Your task to perform on an android device: Who is the prime minister of Canada? Image 0: 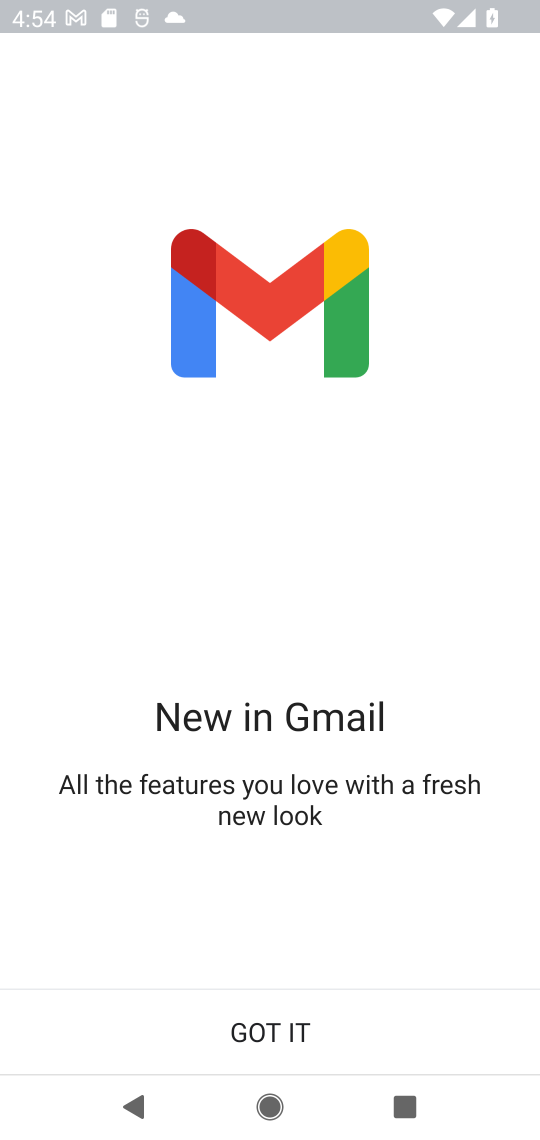
Step 0: press home button
Your task to perform on an android device: Who is the prime minister of Canada? Image 1: 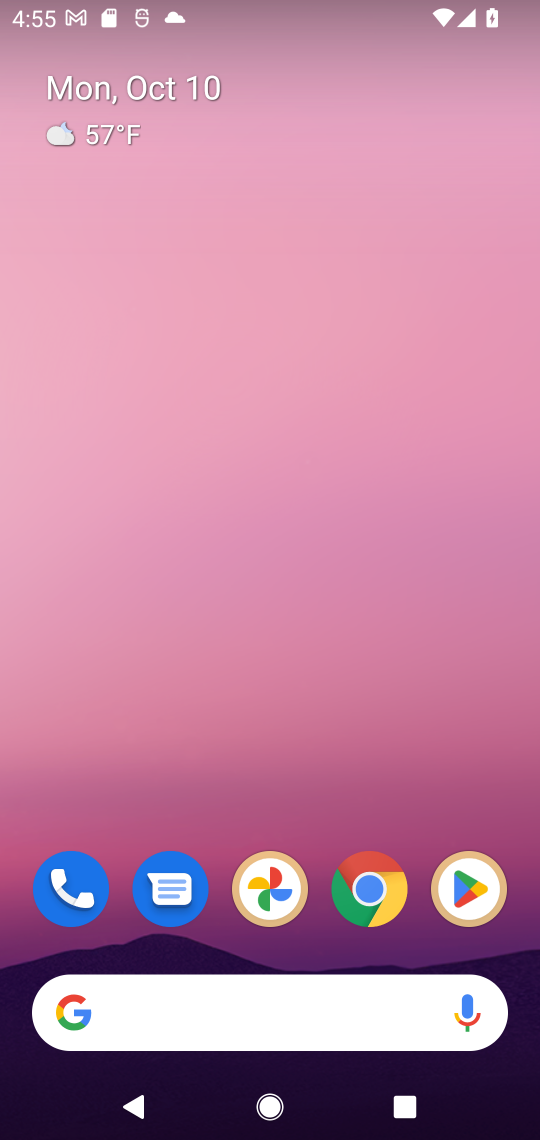
Step 1: click (371, 902)
Your task to perform on an android device: Who is the prime minister of Canada? Image 2: 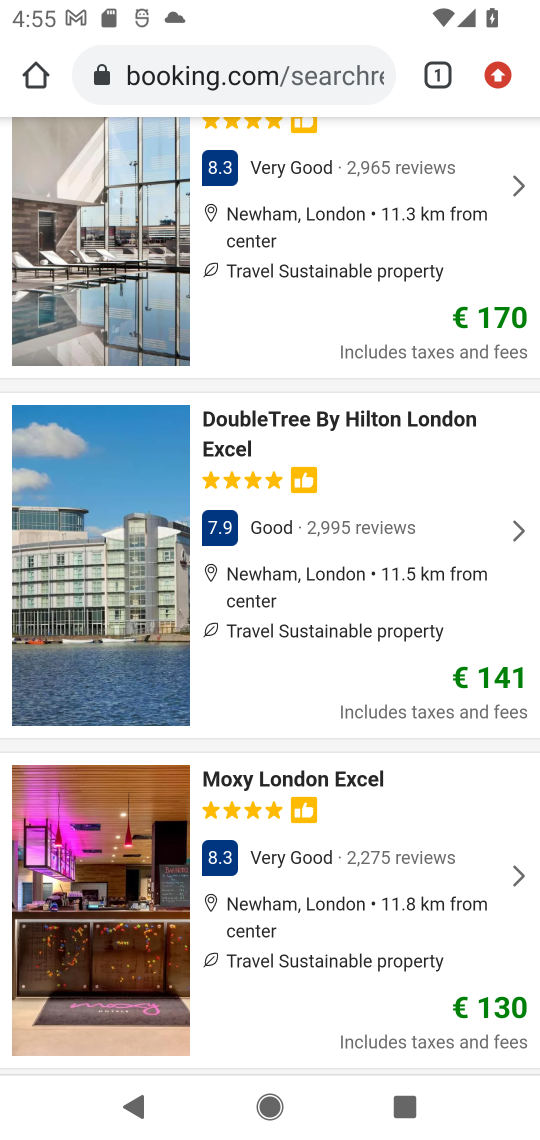
Step 2: click (250, 51)
Your task to perform on an android device: Who is the prime minister of Canada? Image 3: 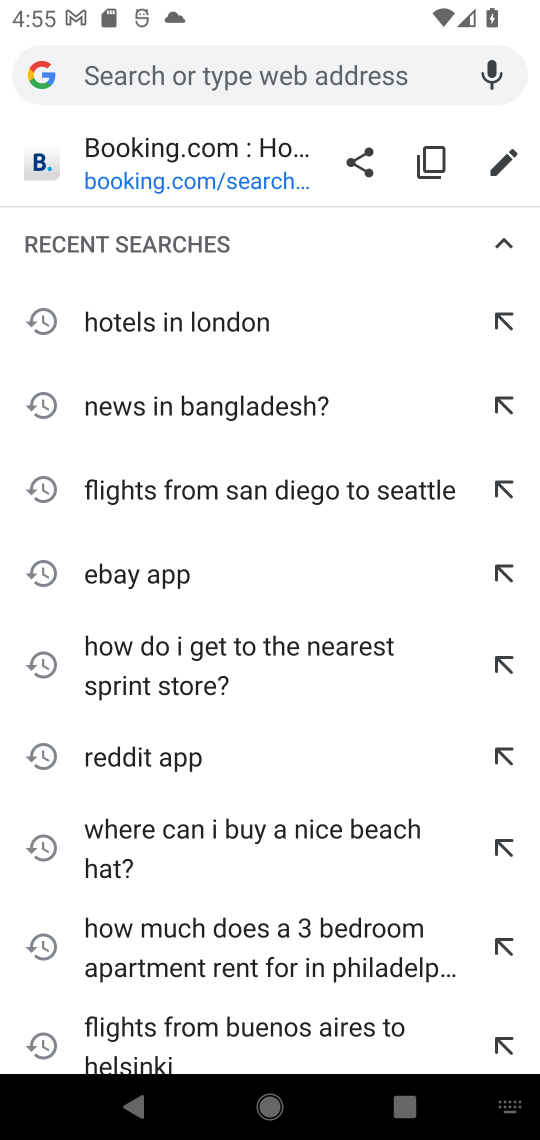
Step 3: type "prime minister of canada?"
Your task to perform on an android device: Who is the prime minister of Canada? Image 4: 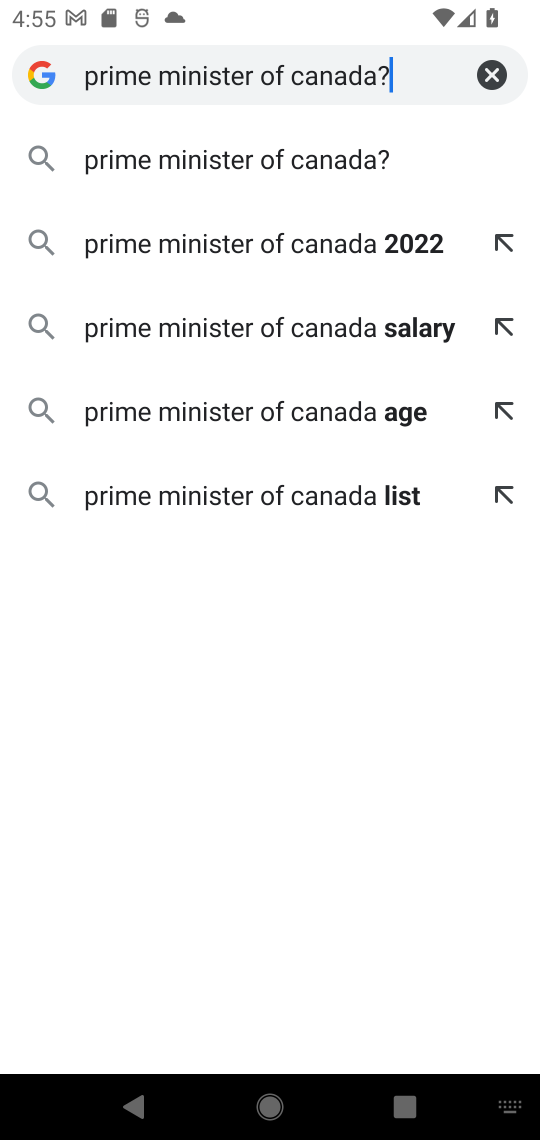
Step 4: click (187, 149)
Your task to perform on an android device: Who is the prime minister of Canada? Image 5: 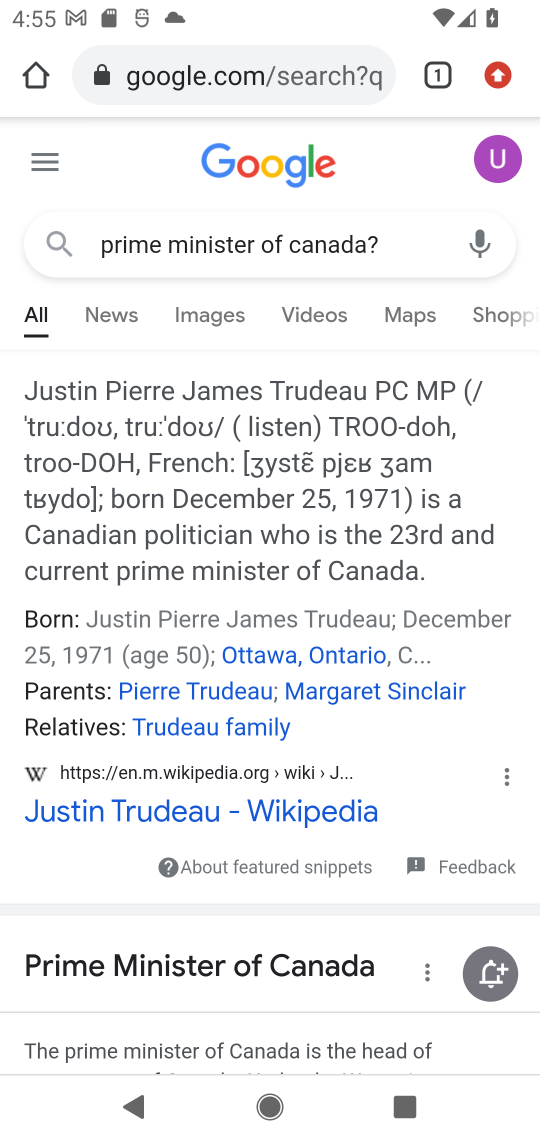
Step 5: click (145, 811)
Your task to perform on an android device: Who is the prime minister of Canada? Image 6: 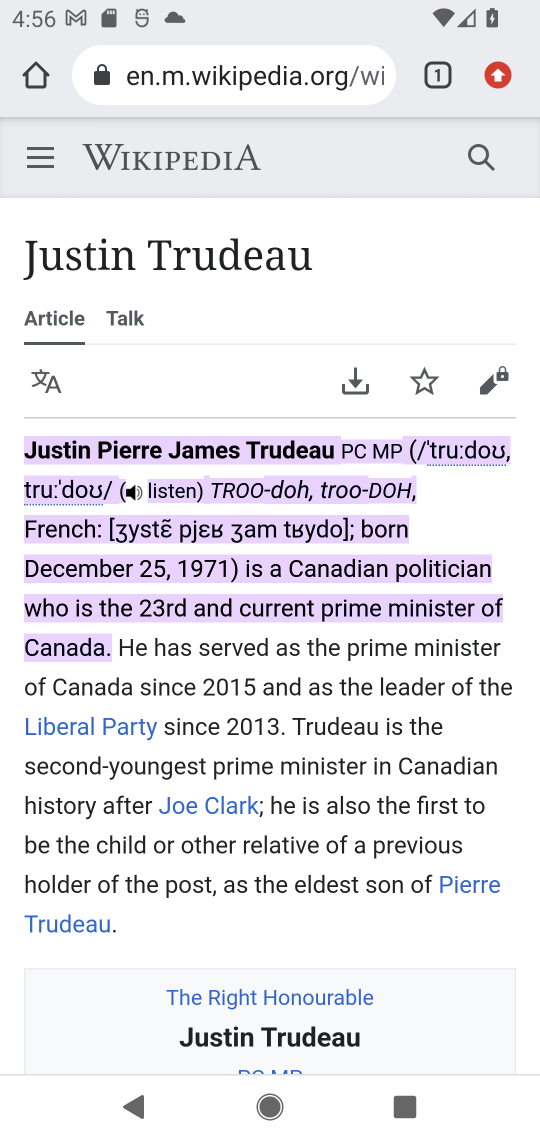
Step 6: task complete